Your task to perform on an android device: Play the last video I watched on Youtube Image 0: 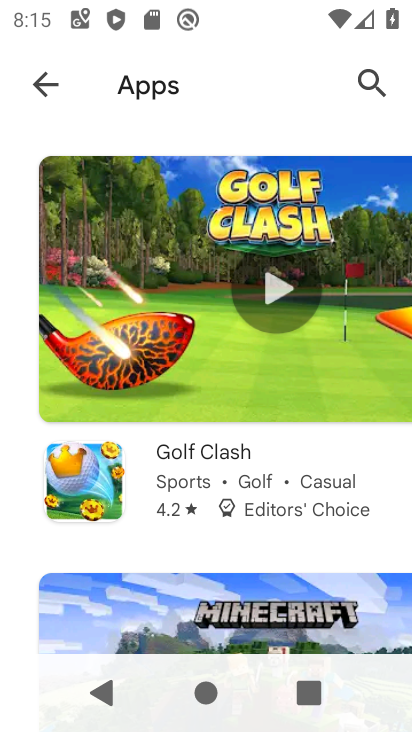
Step 0: press home button
Your task to perform on an android device: Play the last video I watched on Youtube Image 1: 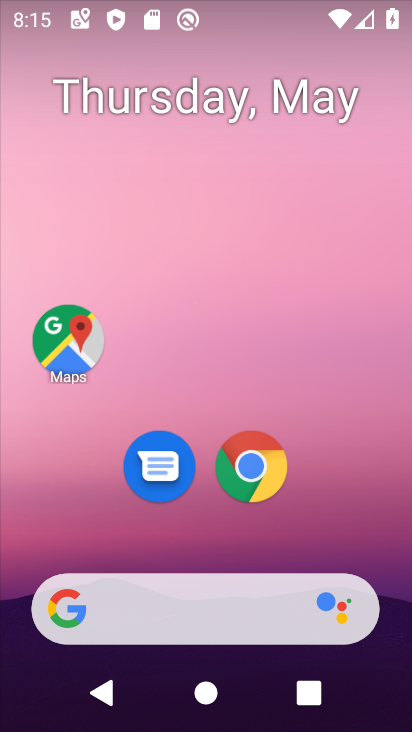
Step 1: drag from (362, 550) to (343, 23)
Your task to perform on an android device: Play the last video I watched on Youtube Image 2: 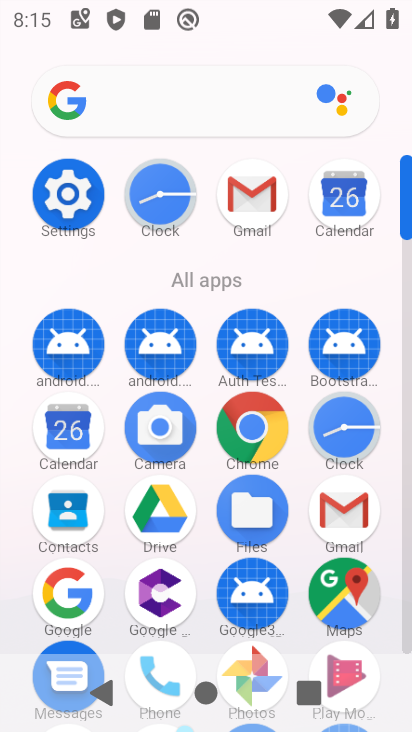
Step 2: drag from (408, 505) to (410, 454)
Your task to perform on an android device: Play the last video I watched on Youtube Image 3: 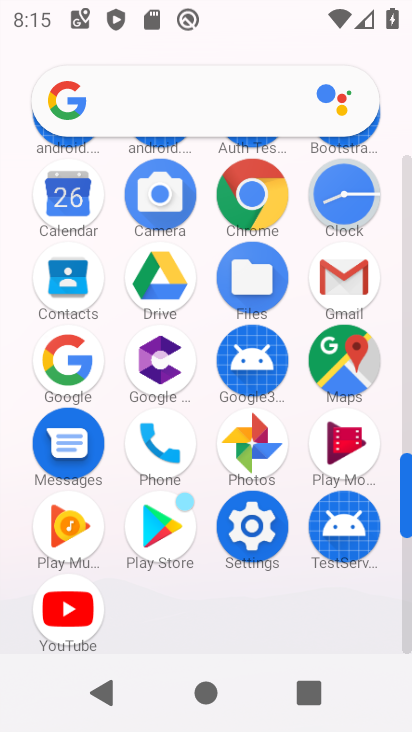
Step 3: click (75, 614)
Your task to perform on an android device: Play the last video I watched on Youtube Image 4: 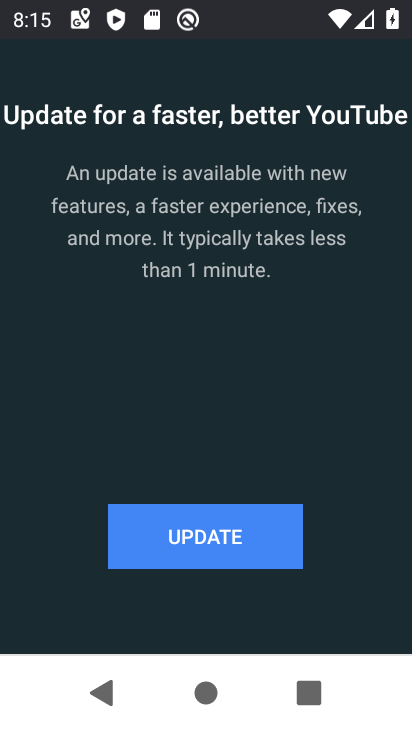
Step 4: click (194, 547)
Your task to perform on an android device: Play the last video I watched on Youtube Image 5: 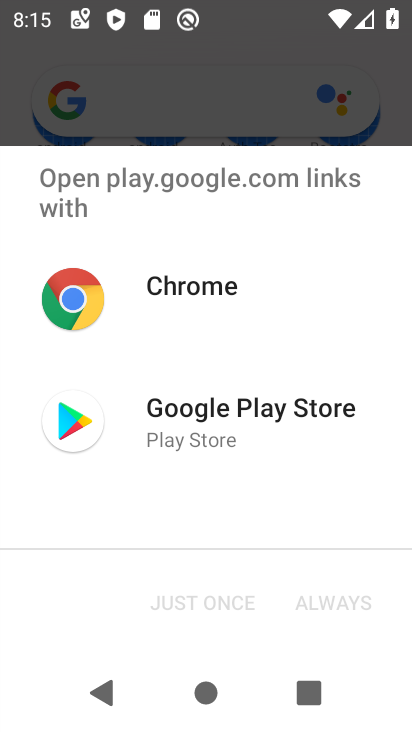
Step 5: click (85, 445)
Your task to perform on an android device: Play the last video I watched on Youtube Image 6: 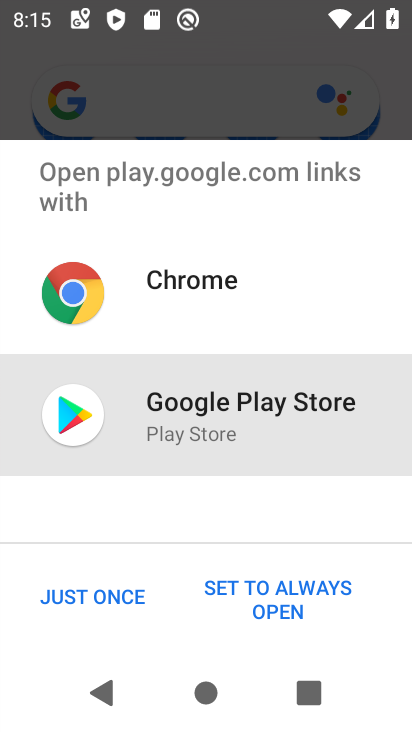
Step 6: click (101, 595)
Your task to perform on an android device: Play the last video I watched on Youtube Image 7: 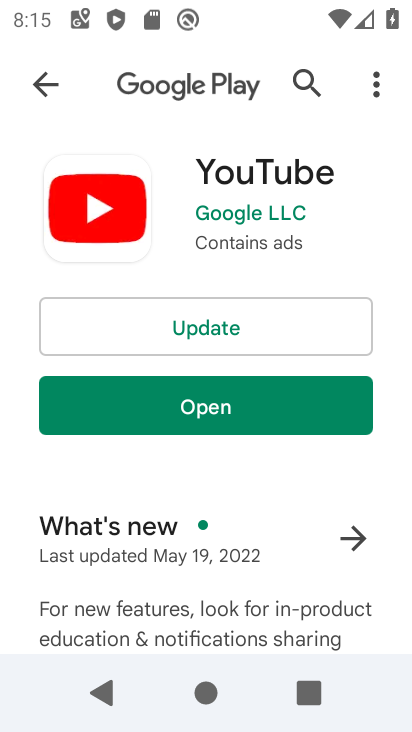
Step 7: click (207, 326)
Your task to perform on an android device: Play the last video I watched on Youtube Image 8: 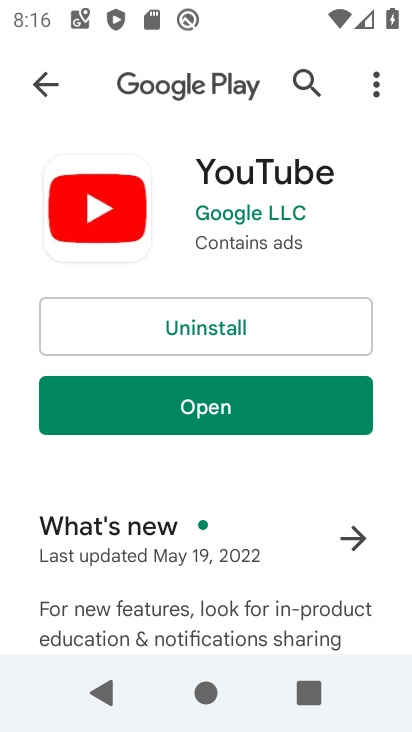
Step 8: click (244, 415)
Your task to perform on an android device: Play the last video I watched on Youtube Image 9: 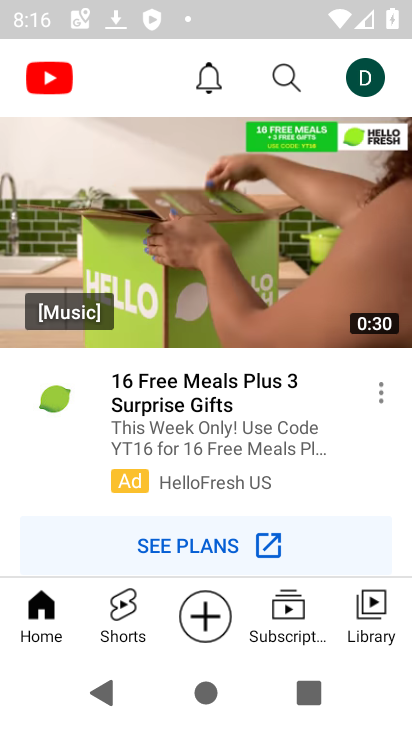
Step 9: click (370, 616)
Your task to perform on an android device: Play the last video I watched on Youtube Image 10: 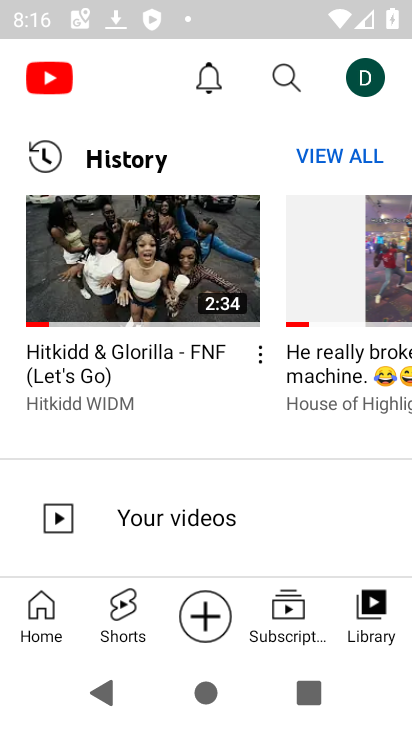
Step 10: drag from (142, 480) to (155, 263)
Your task to perform on an android device: Play the last video I watched on Youtube Image 11: 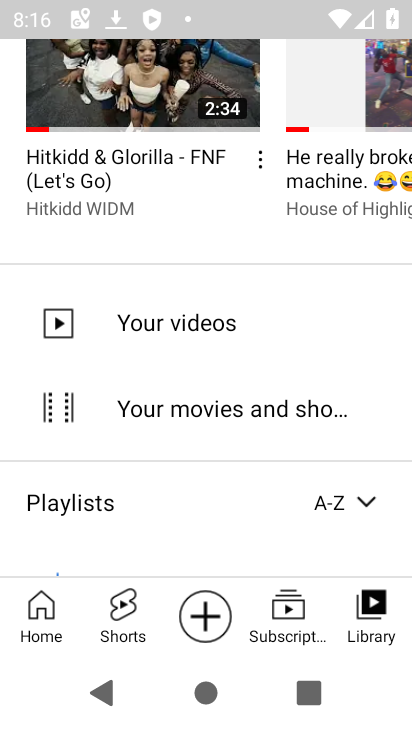
Step 11: drag from (155, 188) to (130, 483)
Your task to perform on an android device: Play the last video I watched on Youtube Image 12: 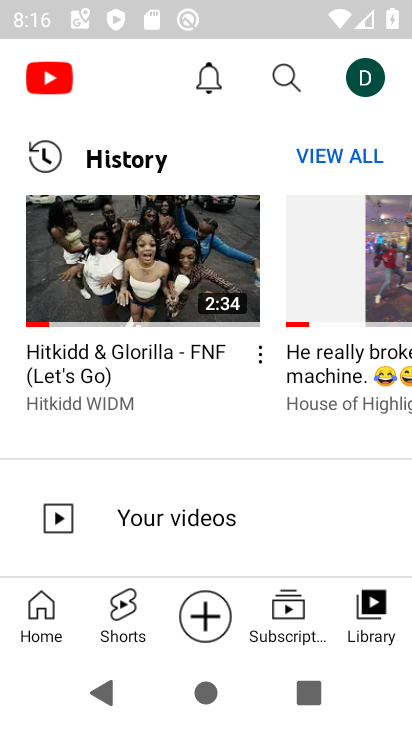
Step 12: drag from (166, 440) to (148, 98)
Your task to perform on an android device: Play the last video I watched on Youtube Image 13: 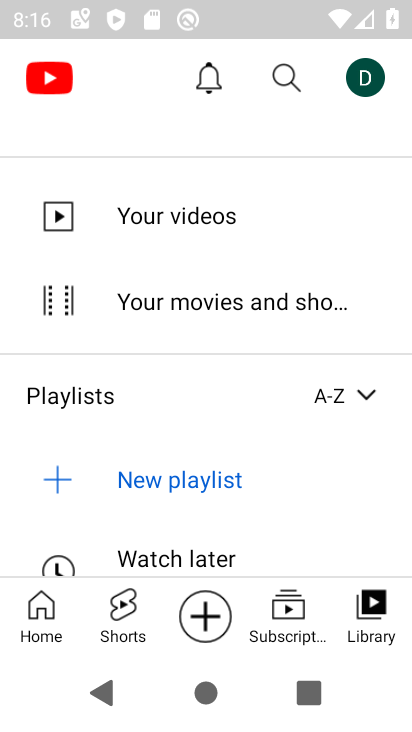
Step 13: drag from (157, 399) to (154, 143)
Your task to perform on an android device: Play the last video I watched on Youtube Image 14: 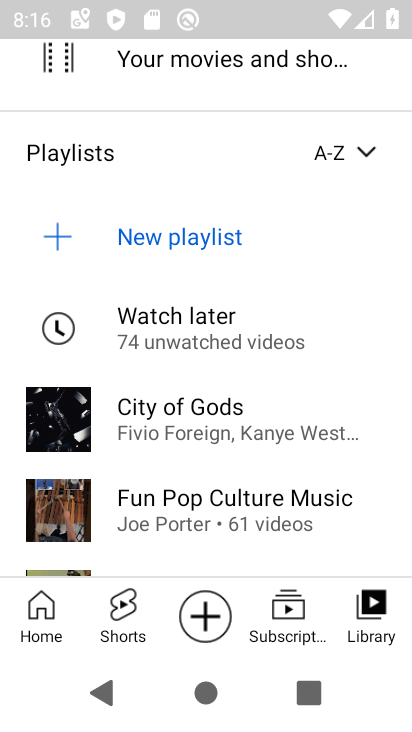
Step 14: drag from (151, 146) to (132, 671)
Your task to perform on an android device: Play the last video I watched on Youtube Image 15: 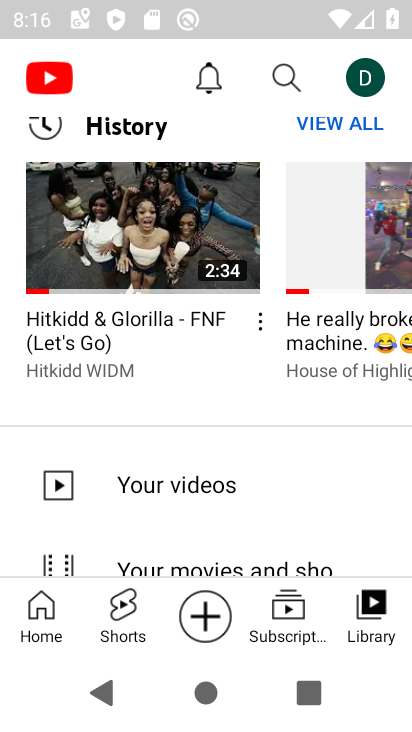
Step 15: drag from (126, 238) to (141, 398)
Your task to perform on an android device: Play the last video I watched on Youtube Image 16: 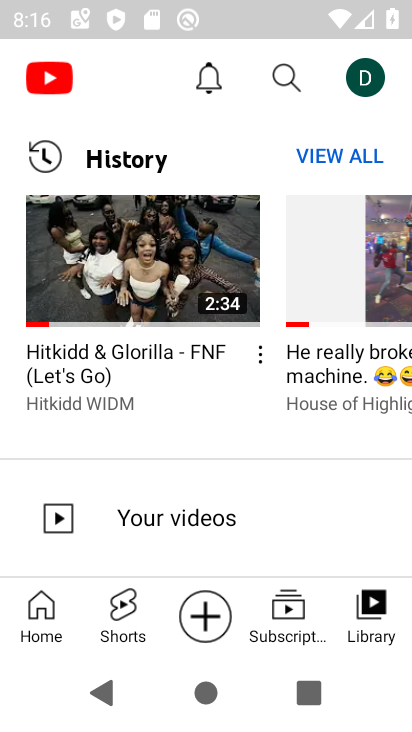
Step 16: click (137, 296)
Your task to perform on an android device: Play the last video I watched on Youtube Image 17: 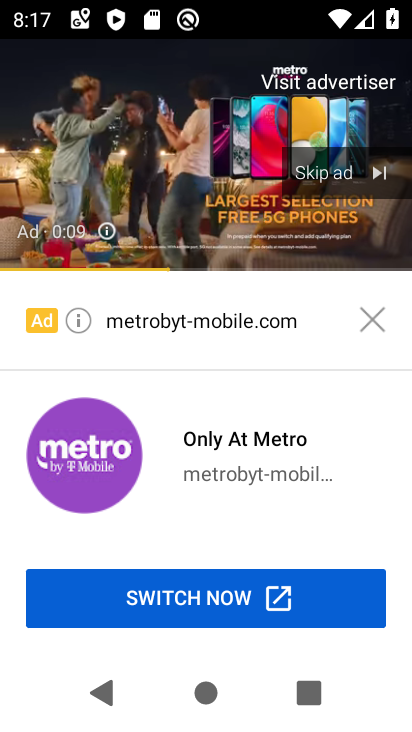
Step 17: click (359, 169)
Your task to perform on an android device: Play the last video I watched on Youtube Image 18: 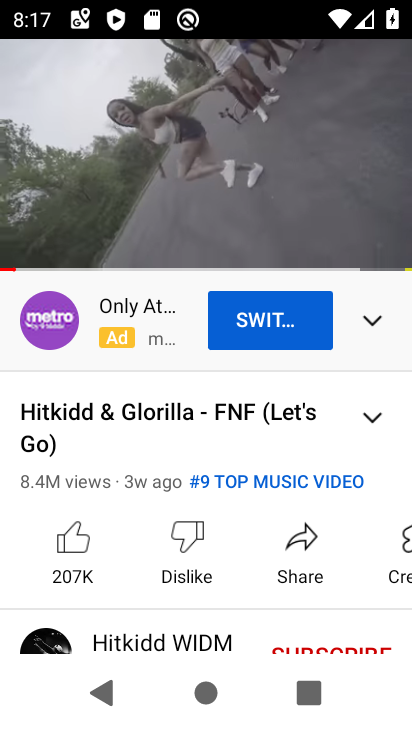
Step 18: click (222, 191)
Your task to perform on an android device: Play the last video I watched on Youtube Image 19: 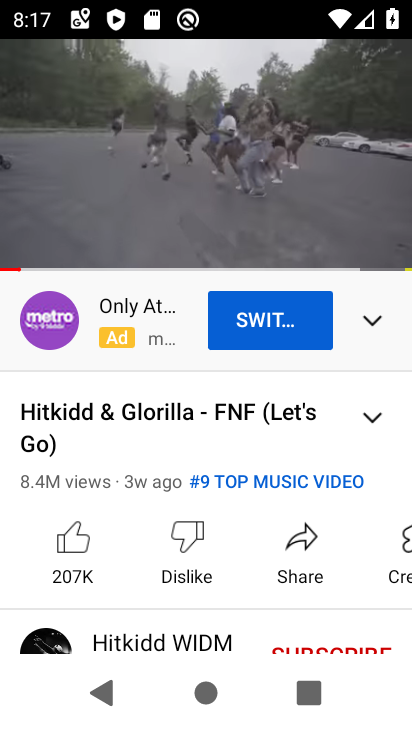
Step 19: click (205, 154)
Your task to perform on an android device: Play the last video I watched on Youtube Image 20: 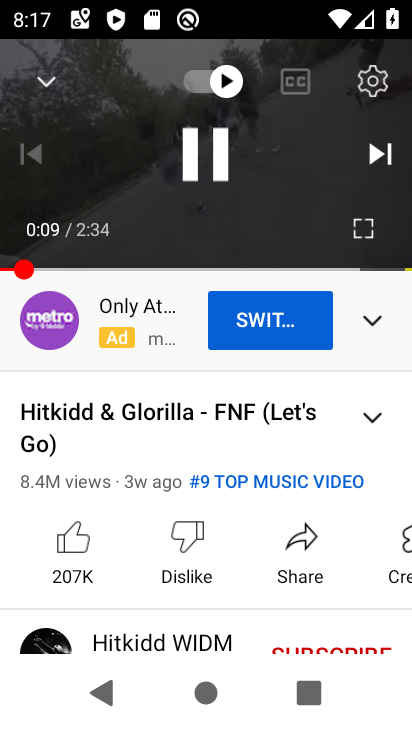
Step 20: click (205, 154)
Your task to perform on an android device: Play the last video I watched on Youtube Image 21: 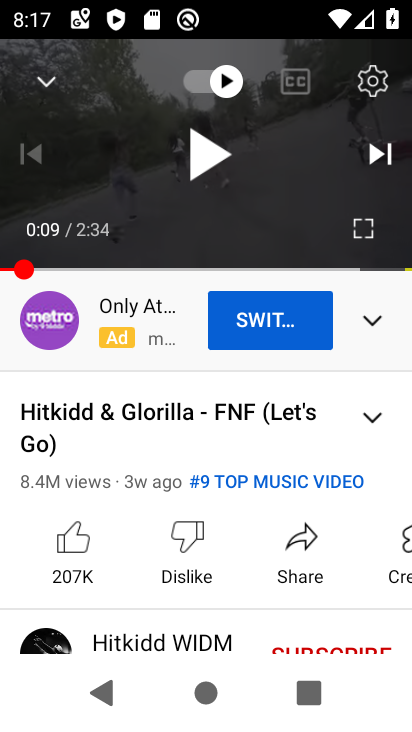
Step 21: task complete